Your task to perform on an android device: Go to battery settings Image 0: 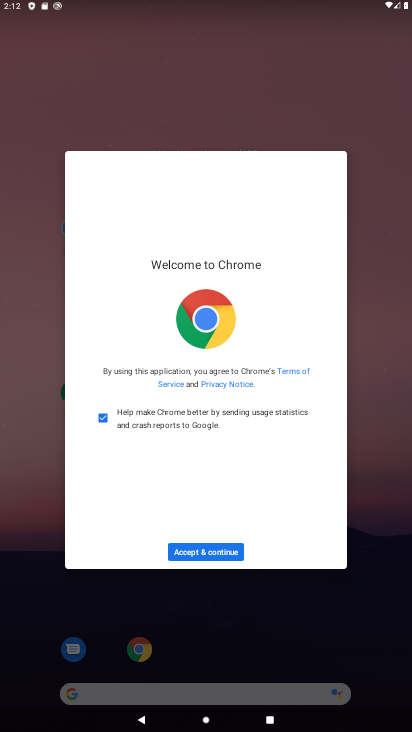
Step 0: press home button
Your task to perform on an android device: Go to battery settings Image 1: 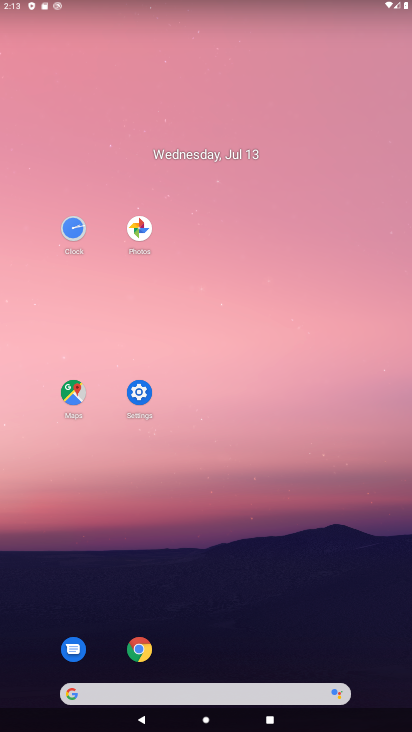
Step 1: click (144, 387)
Your task to perform on an android device: Go to battery settings Image 2: 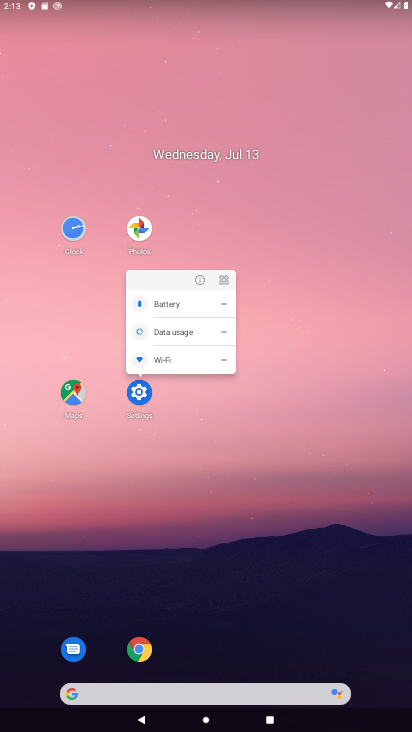
Step 2: click (172, 302)
Your task to perform on an android device: Go to battery settings Image 3: 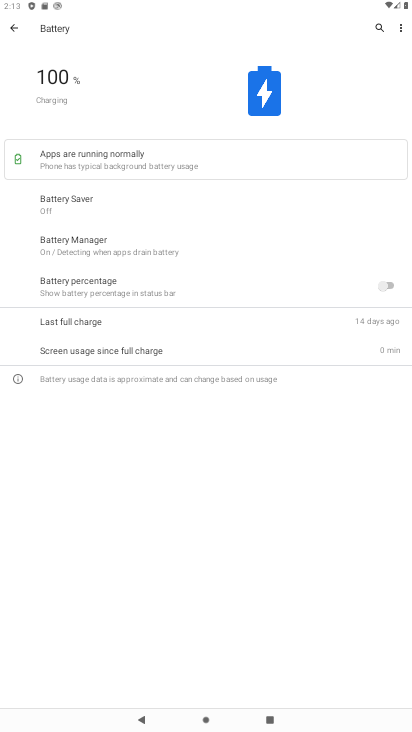
Step 3: task complete